Your task to perform on an android device: Open accessibility settings Image 0: 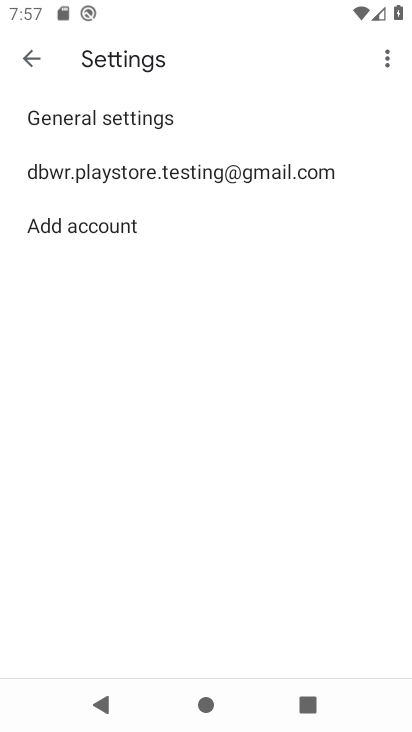
Step 0: press home button
Your task to perform on an android device: Open accessibility settings Image 1: 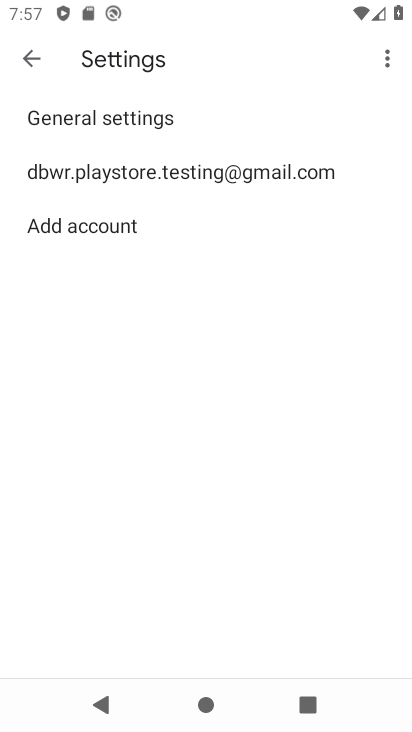
Step 1: press home button
Your task to perform on an android device: Open accessibility settings Image 2: 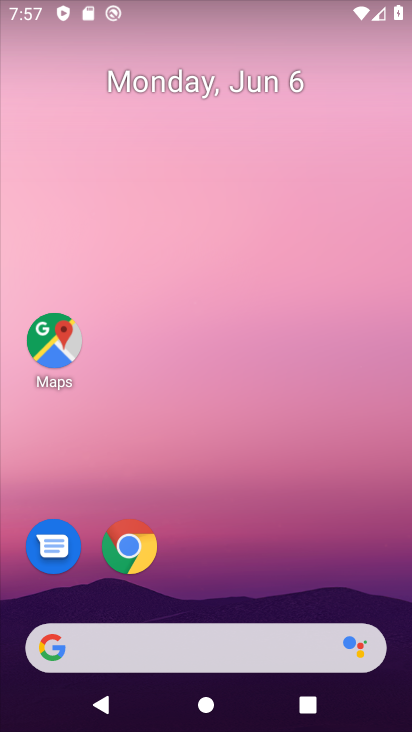
Step 2: drag from (353, 29) to (393, 503)
Your task to perform on an android device: Open accessibility settings Image 3: 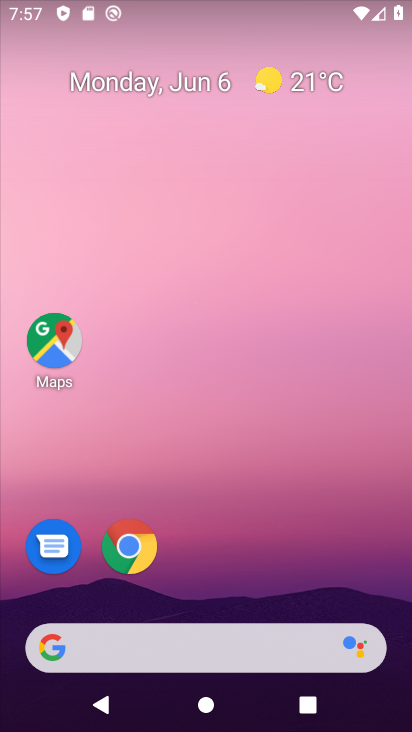
Step 3: drag from (305, 450) to (192, 11)
Your task to perform on an android device: Open accessibility settings Image 4: 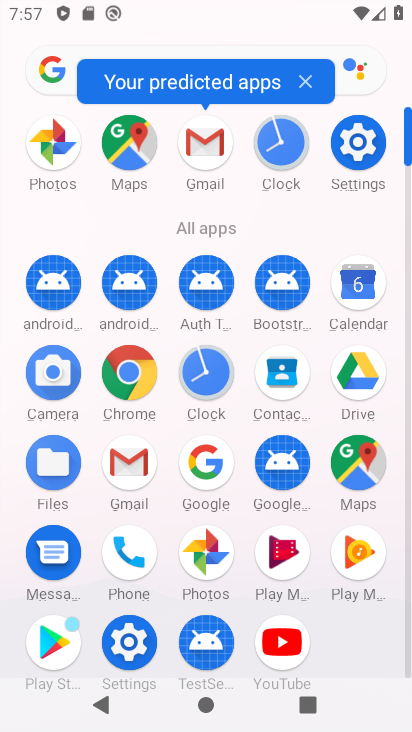
Step 4: click (367, 146)
Your task to perform on an android device: Open accessibility settings Image 5: 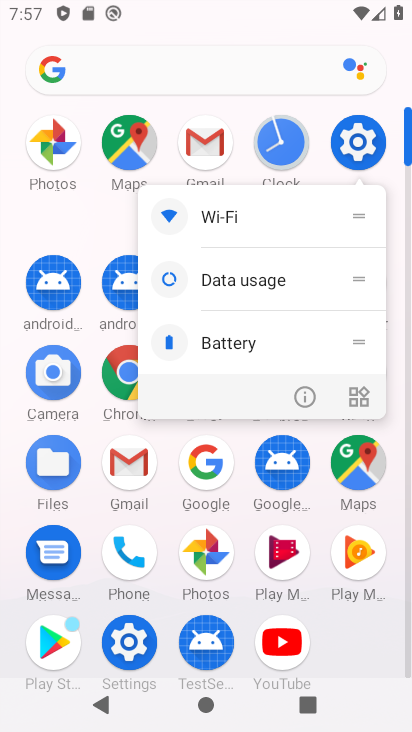
Step 5: click (367, 147)
Your task to perform on an android device: Open accessibility settings Image 6: 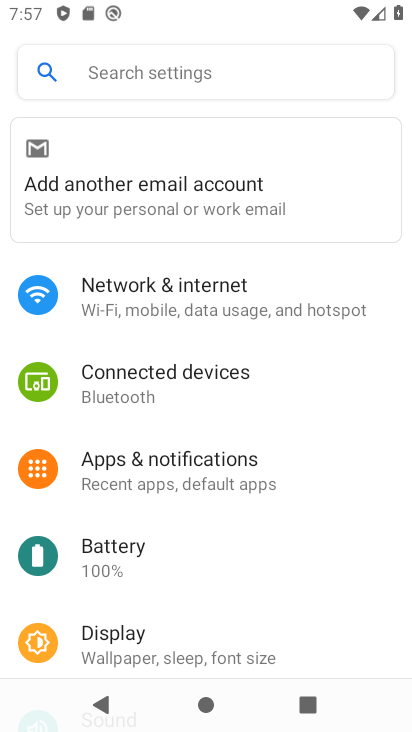
Step 6: drag from (229, 597) to (218, 181)
Your task to perform on an android device: Open accessibility settings Image 7: 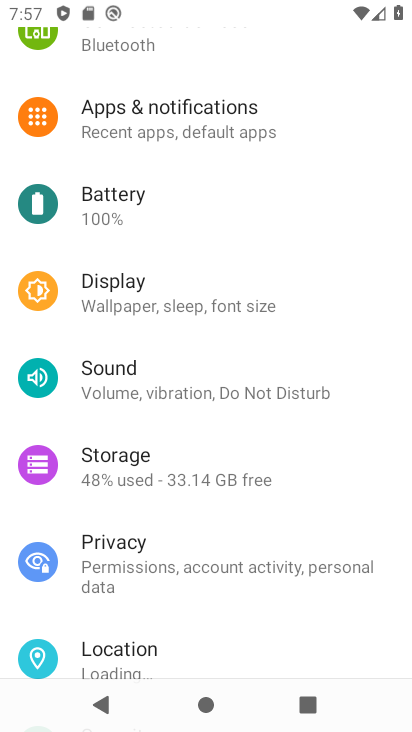
Step 7: drag from (201, 533) to (188, 73)
Your task to perform on an android device: Open accessibility settings Image 8: 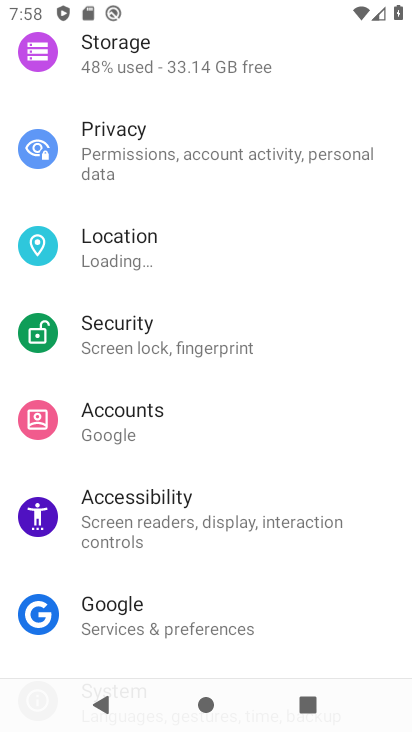
Step 8: click (190, 524)
Your task to perform on an android device: Open accessibility settings Image 9: 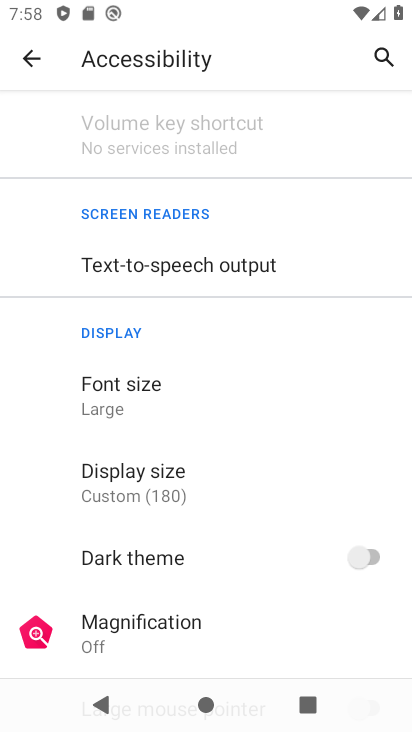
Step 9: task complete